Your task to perform on an android device: install app "Google Keep" Image 0: 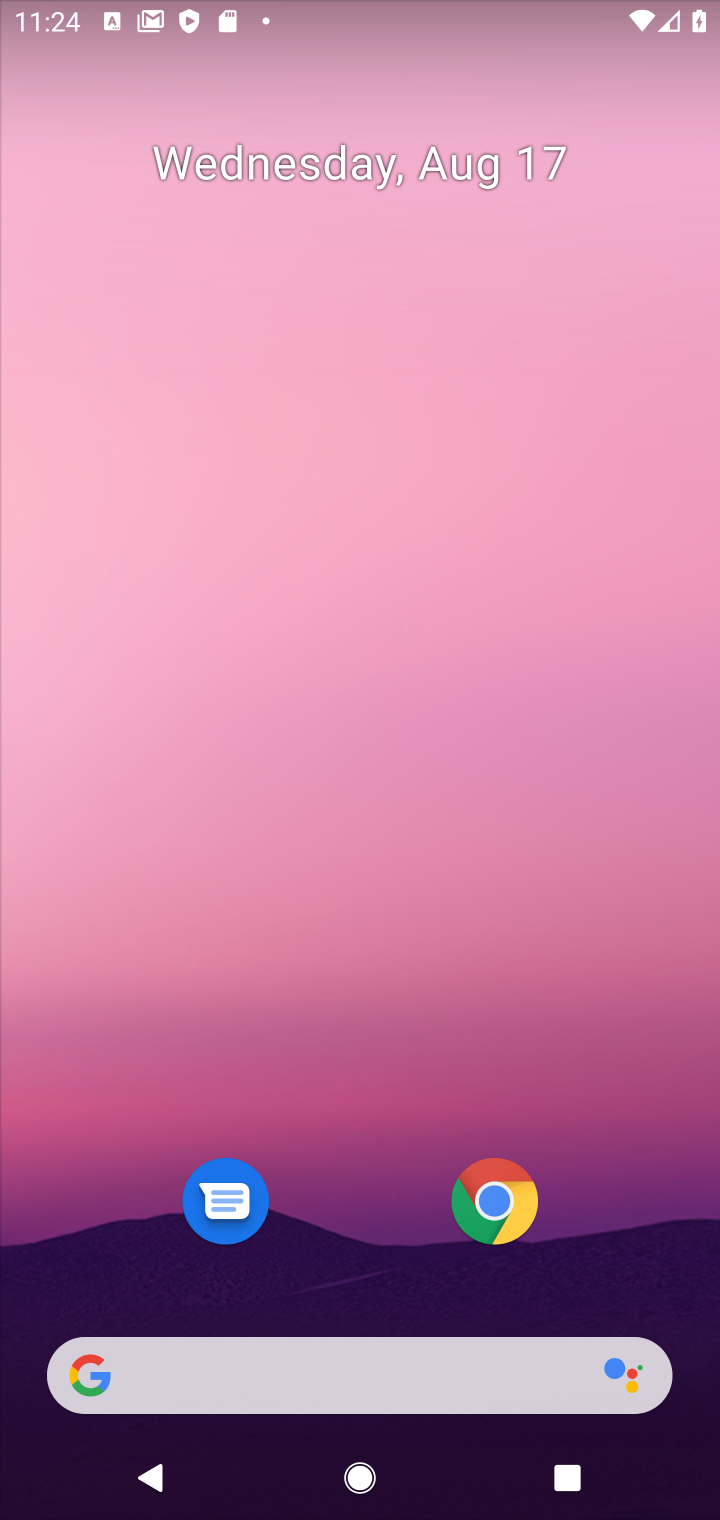
Step 0: drag from (343, 1121) to (449, 376)
Your task to perform on an android device: install app "Google Keep" Image 1: 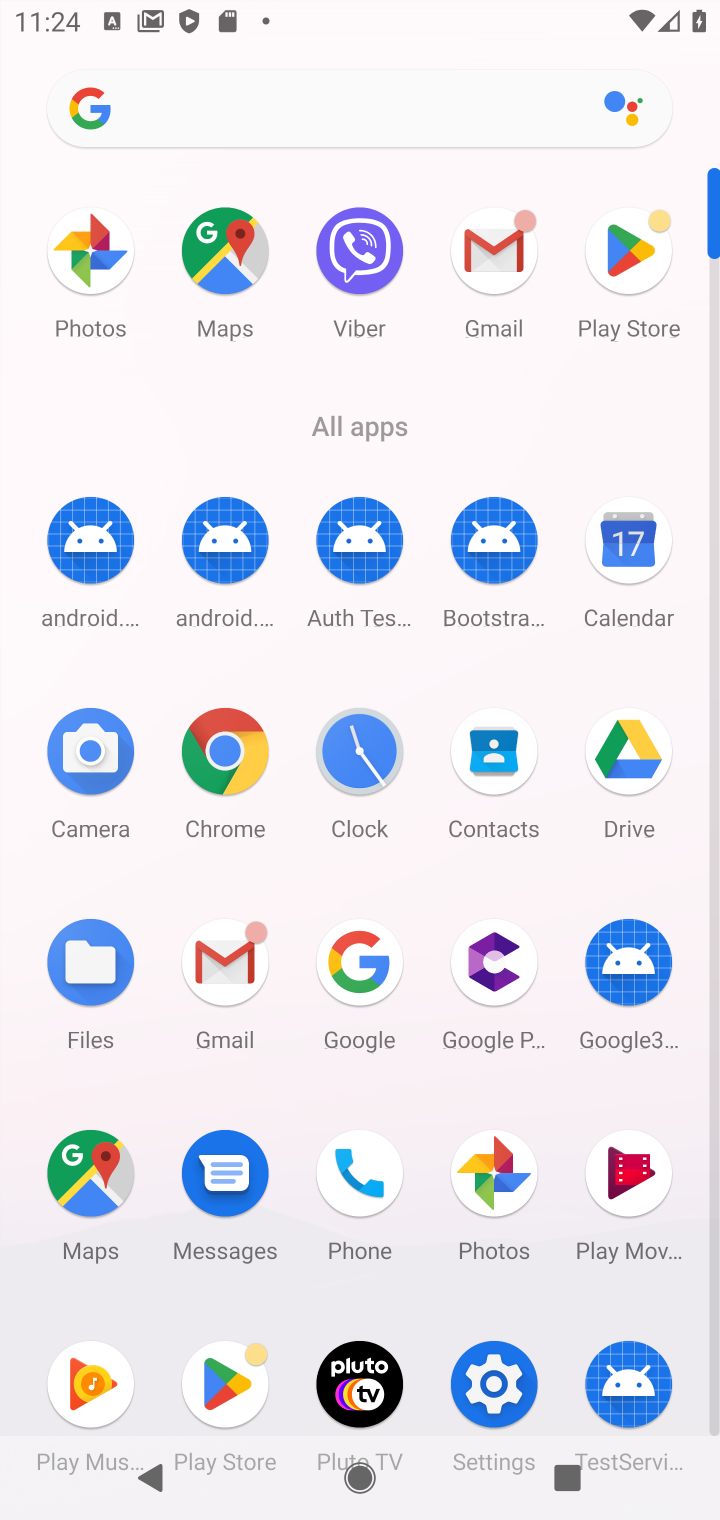
Step 1: click (642, 296)
Your task to perform on an android device: install app "Google Keep" Image 2: 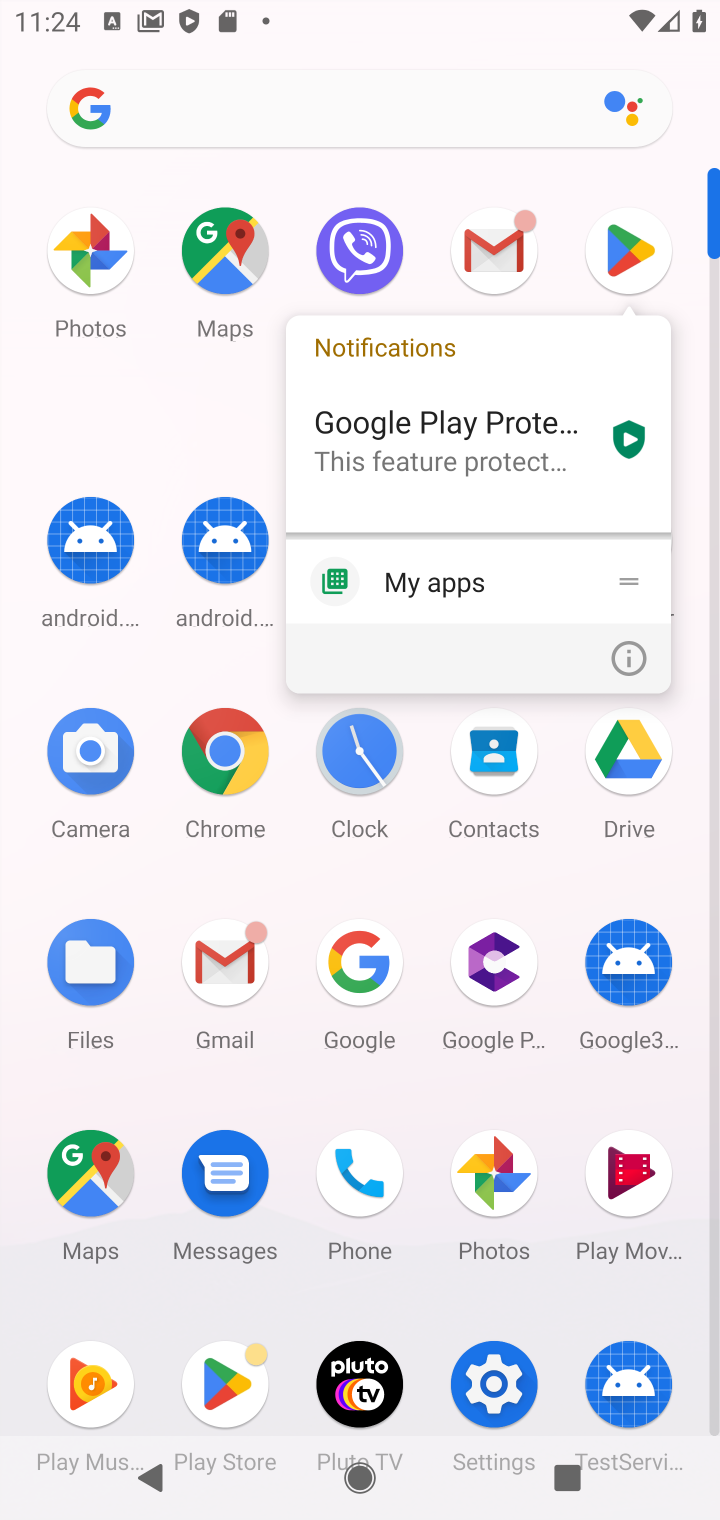
Step 2: click (637, 219)
Your task to perform on an android device: install app "Google Keep" Image 3: 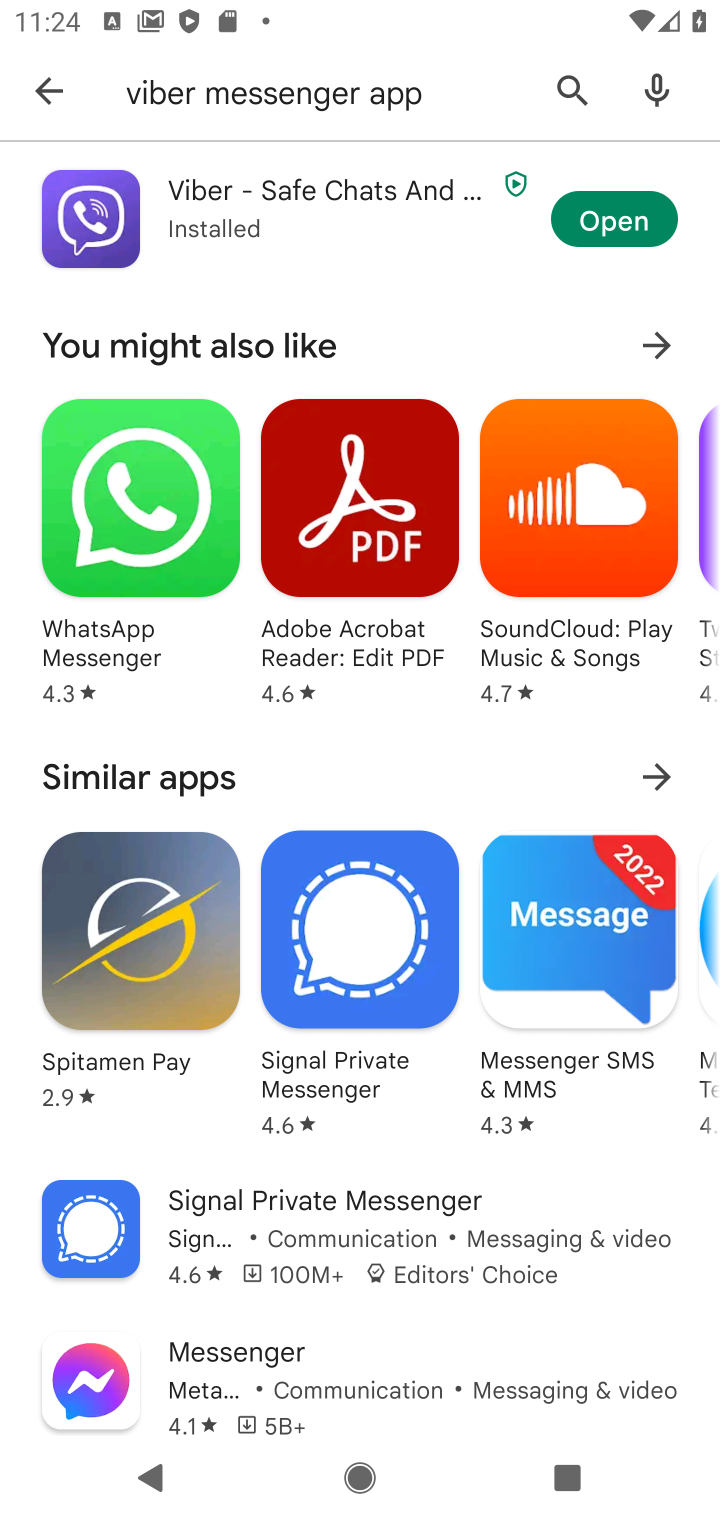
Step 3: click (310, 90)
Your task to perform on an android device: install app "Google Keep" Image 4: 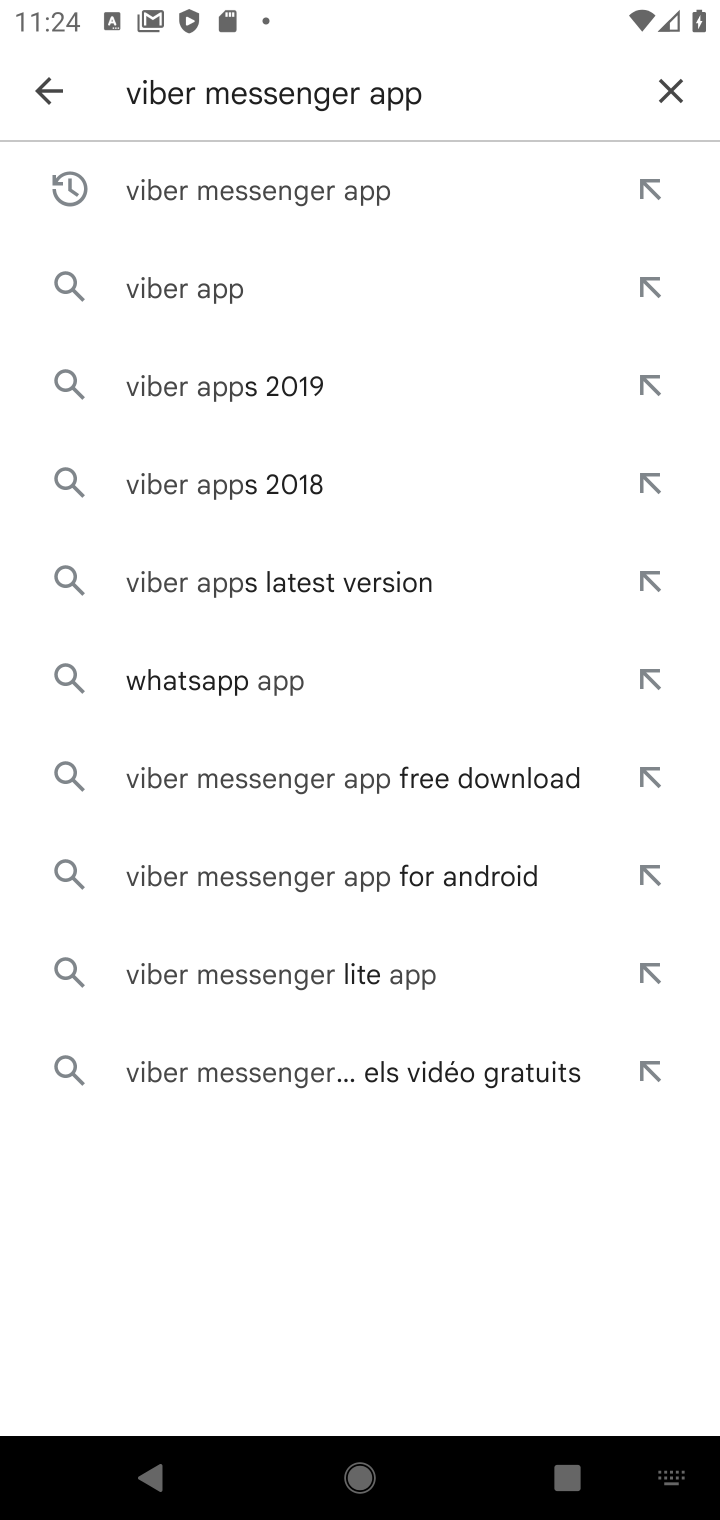
Step 4: click (664, 78)
Your task to perform on an android device: install app "Google Keep" Image 5: 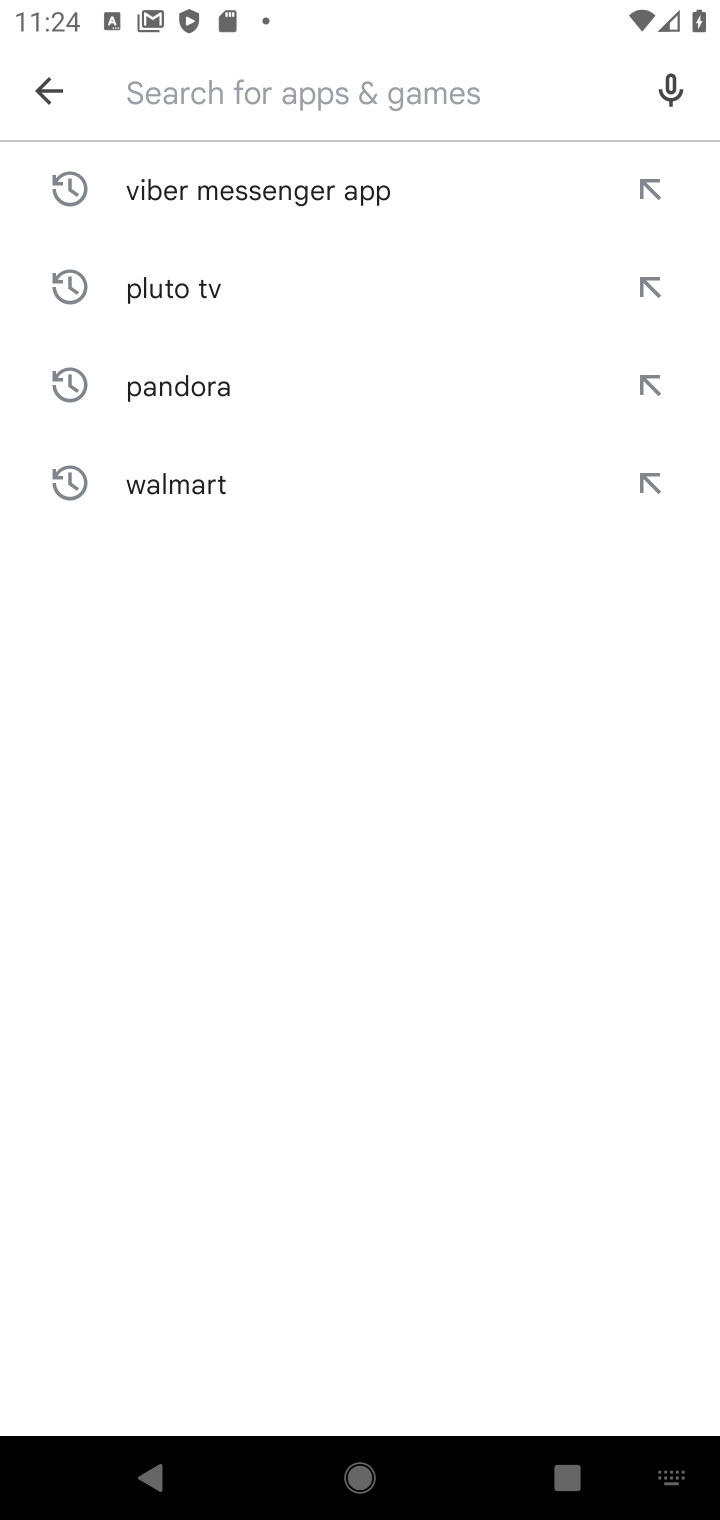
Step 5: type "google keeps"
Your task to perform on an android device: install app "Google Keep" Image 6: 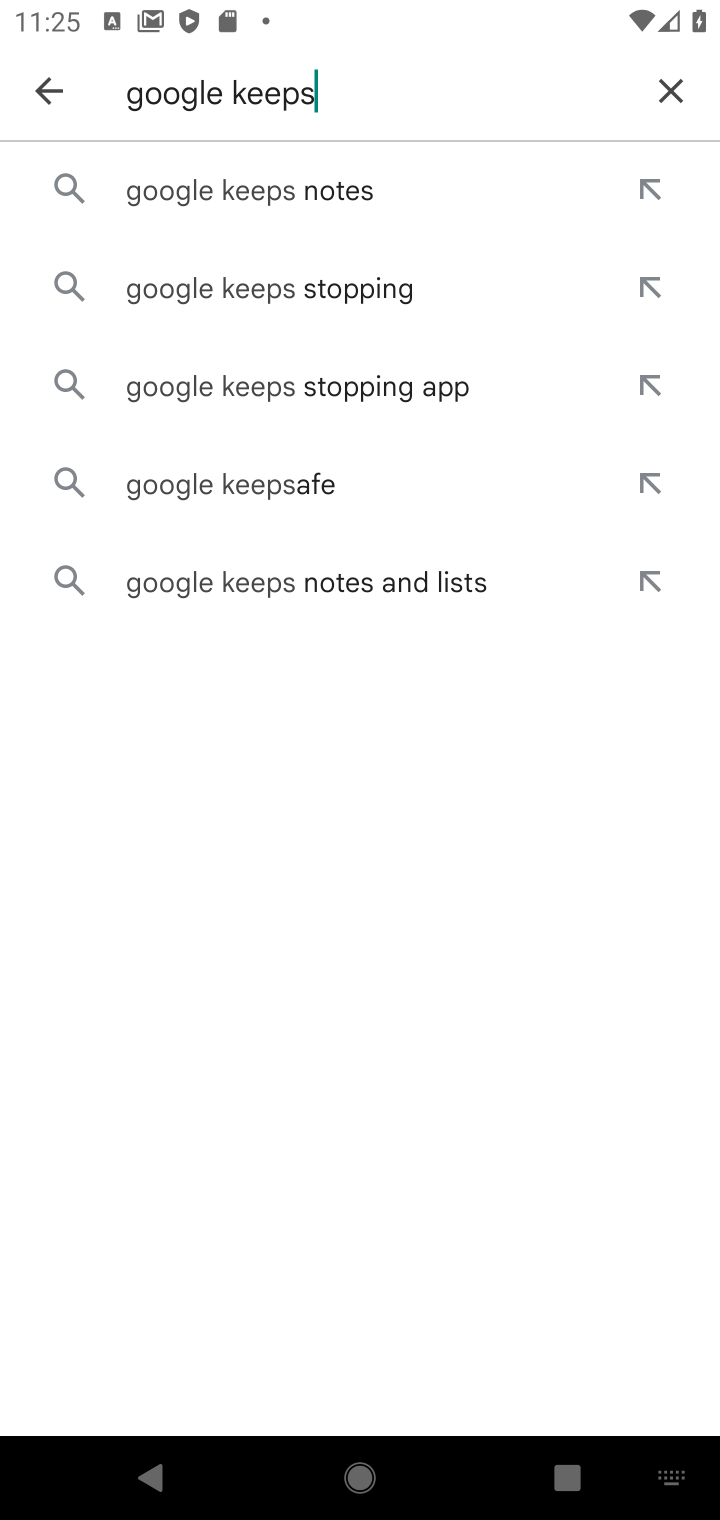
Step 6: click (240, 184)
Your task to perform on an android device: install app "Google Keep" Image 7: 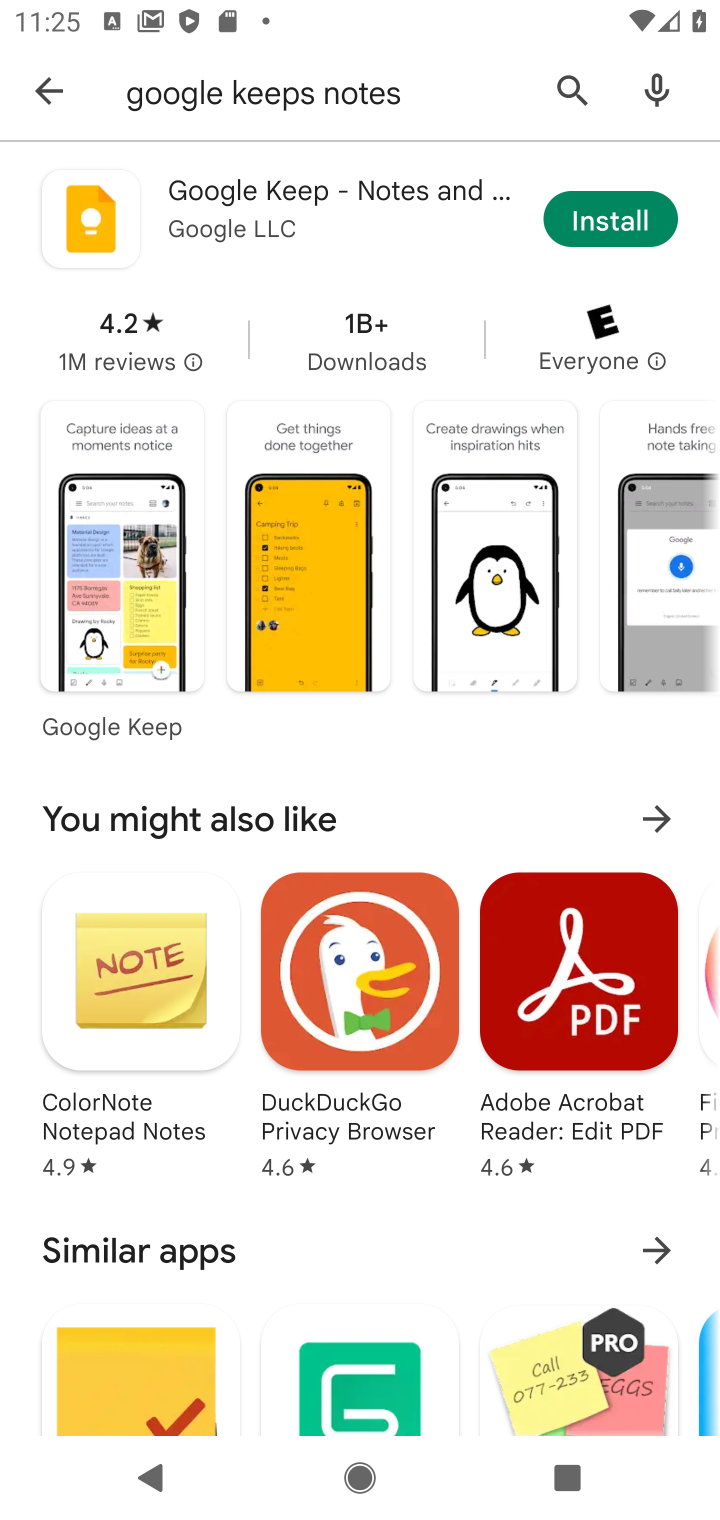
Step 7: click (620, 214)
Your task to perform on an android device: install app "Google Keep" Image 8: 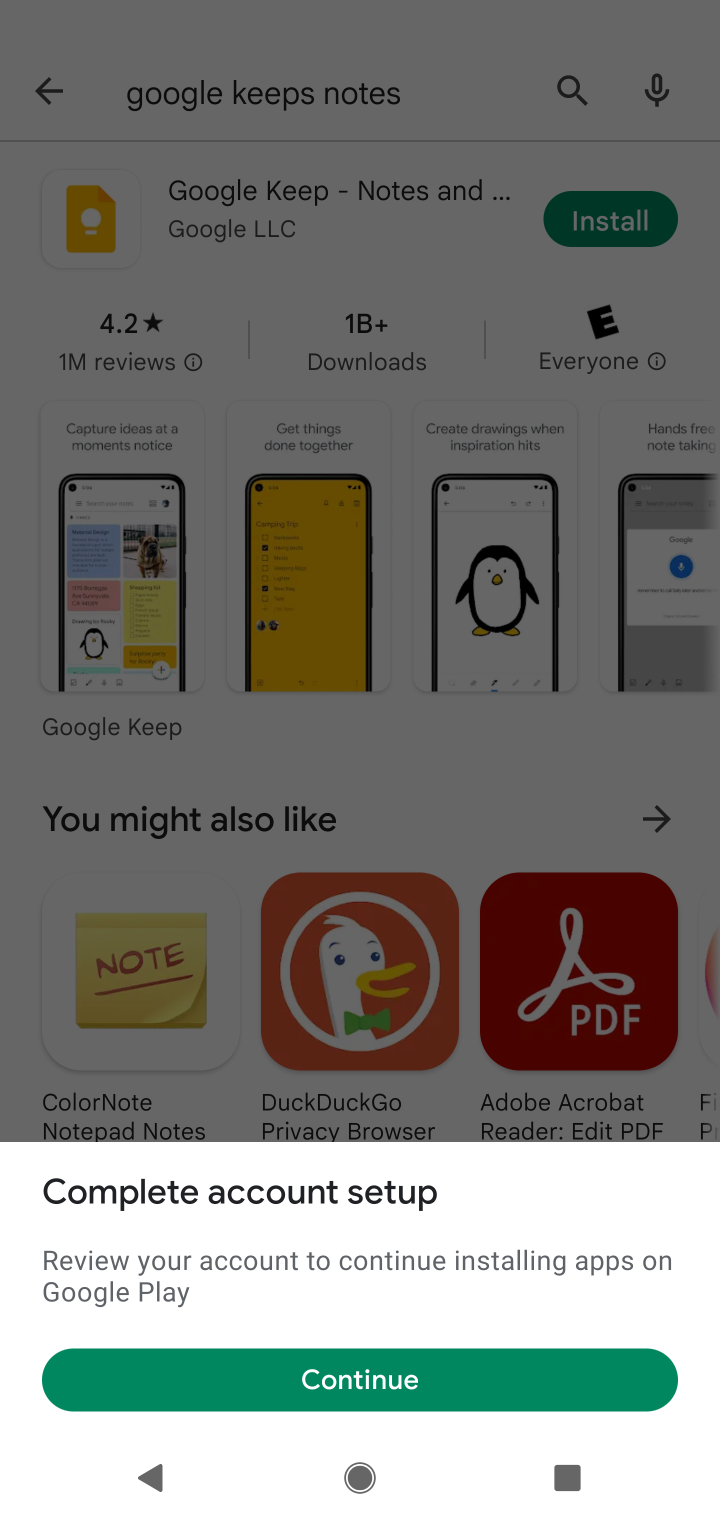
Step 8: click (426, 1379)
Your task to perform on an android device: install app "Google Keep" Image 9: 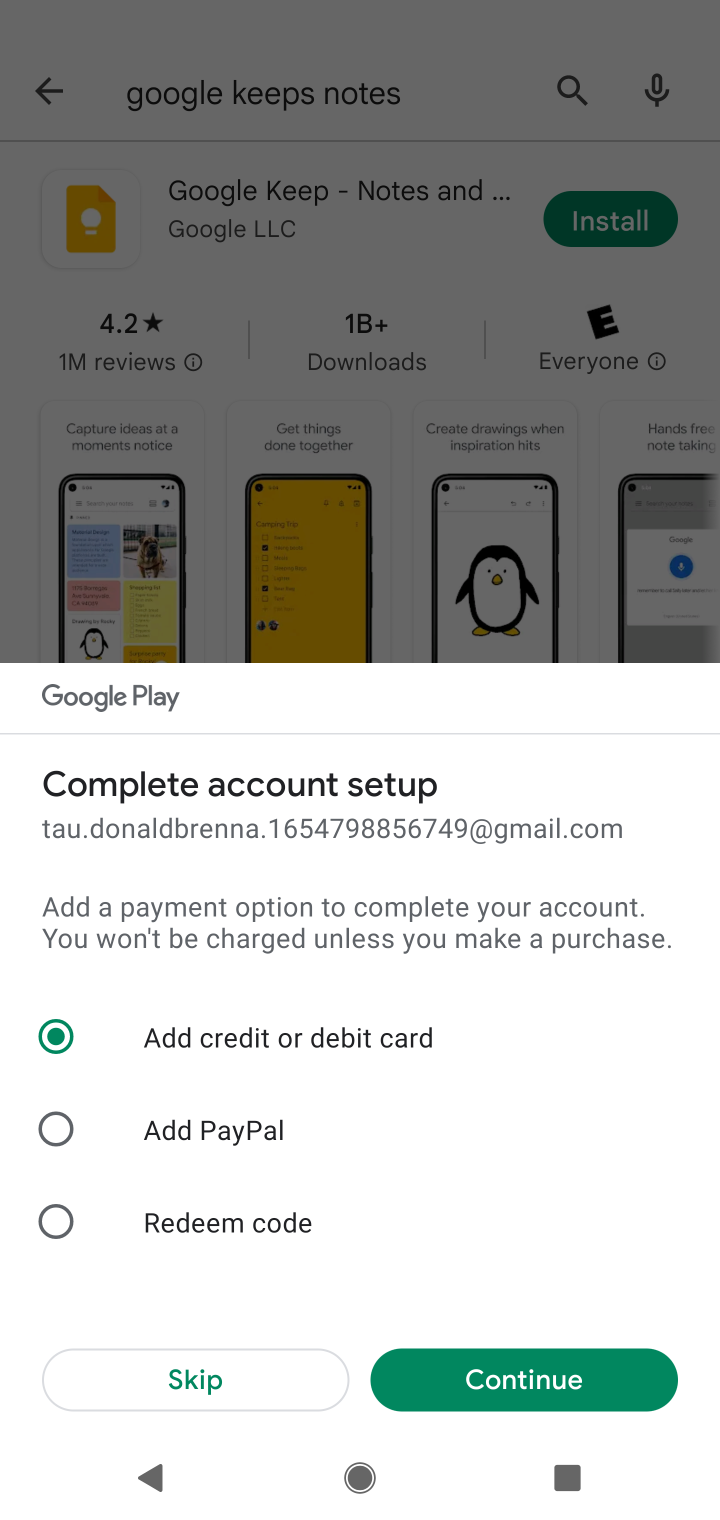
Step 9: click (173, 1383)
Your task to perform on an android device: install app "Google Keep" Image 10: 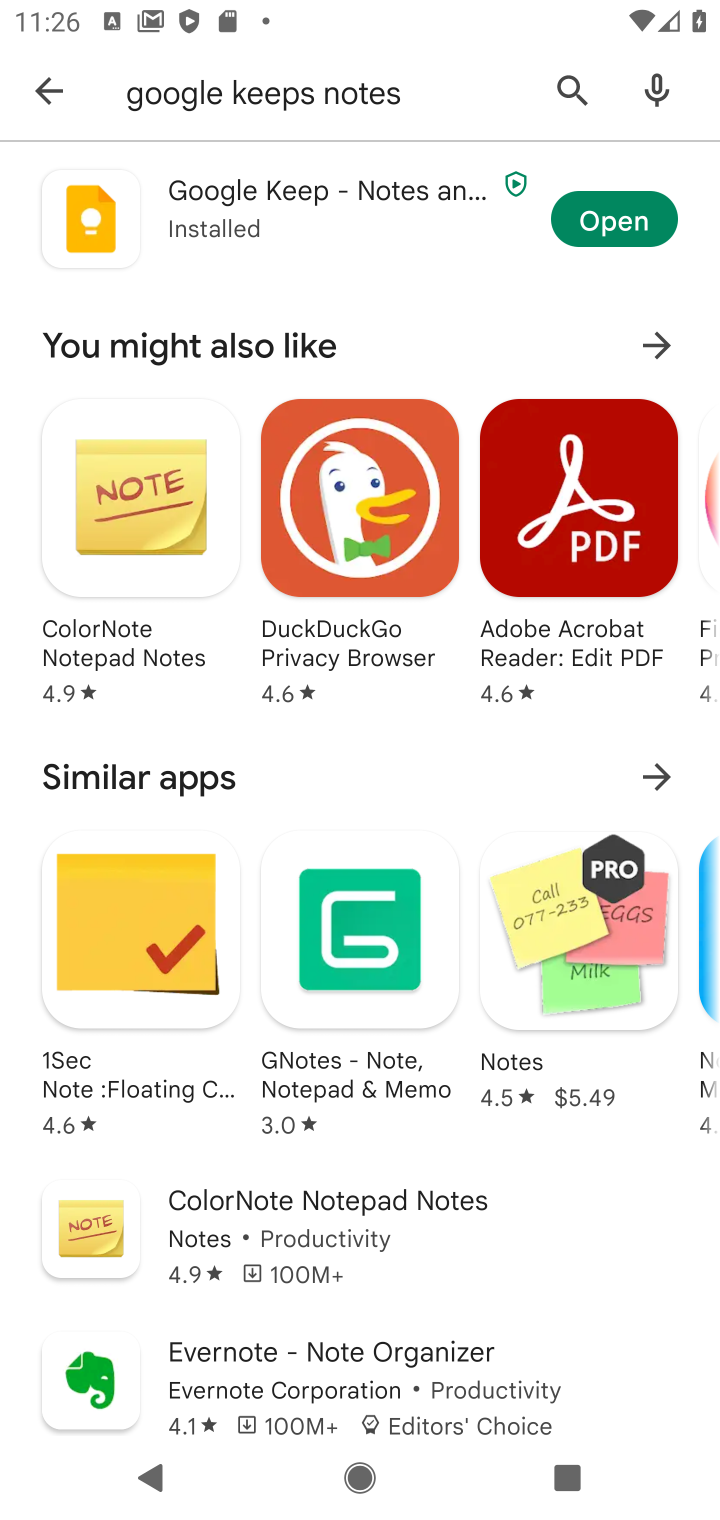
Step 10: task complete